Your task to perform on an android device: toggle translation in the chrome app Image 0: 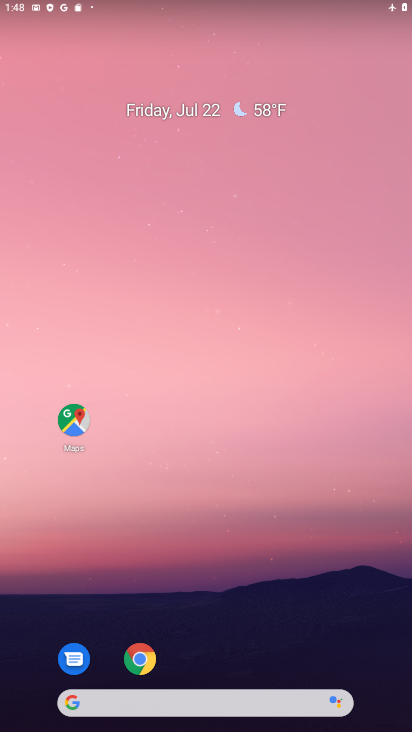
Step 0: press home button
Your task to perform on an android device: toggle translation in the chrome app Image 1: 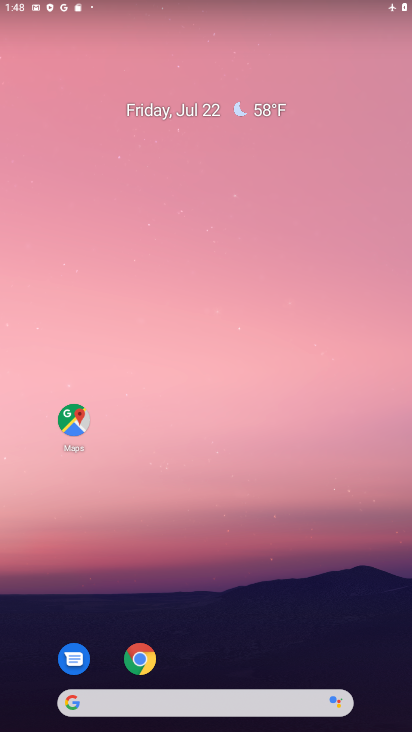
Step 1: drag from (243, 663) to (202, 189)
Your task to perform on an android device: toggle translation in the chrome app Image 2: 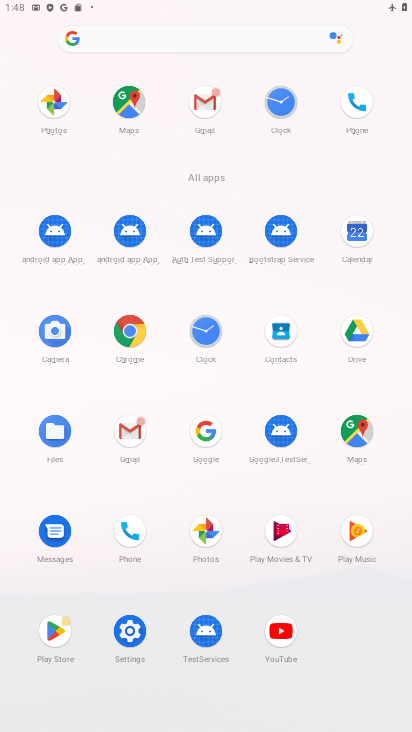
Step 2: click (130, 333)
Your task to perform on an android device: toggle translation in the chrome app Image 3: 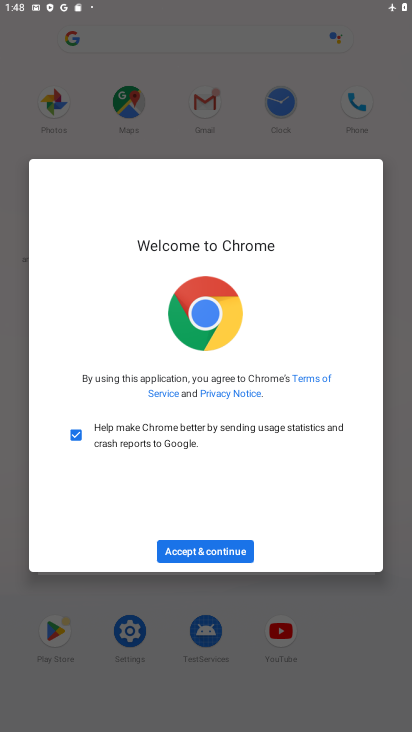
Step 3: click (203, 547)
Your task to perform on an android device: toggle translation in the chrome app Image 4: 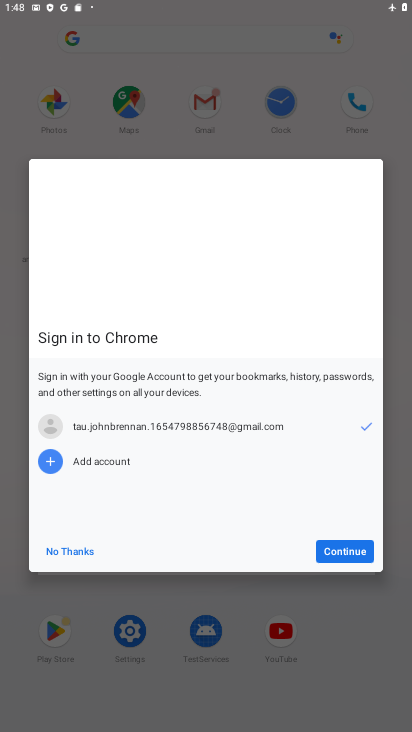
Step 4: click (335, 548)
Your task to perform on an android device: toggle translation in the chrome app Image 5: 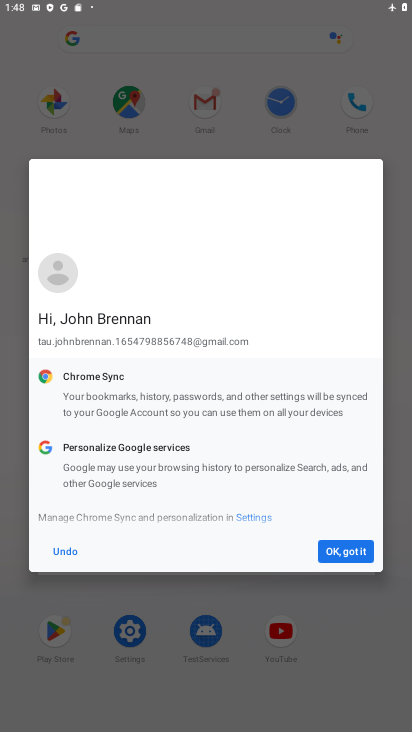
Step 5: click (348, 549)
Your task to perform on an android device: toggle translation in the chrome app Image 6: 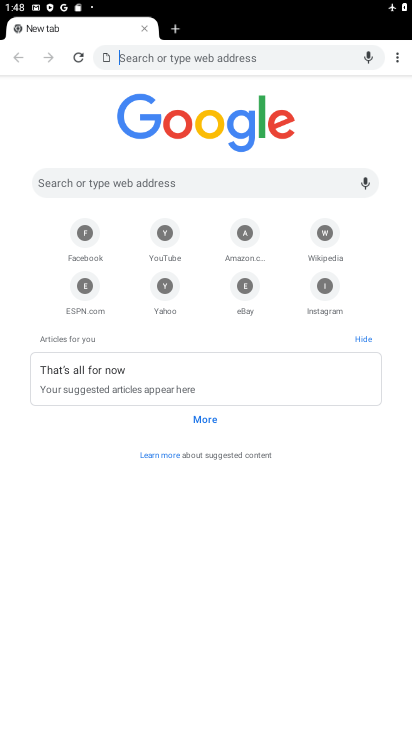
Step 6: drag from (396, 62) to (289, 259)
Your task to perform on an android device: toggle translation in the chrome app Image 7: 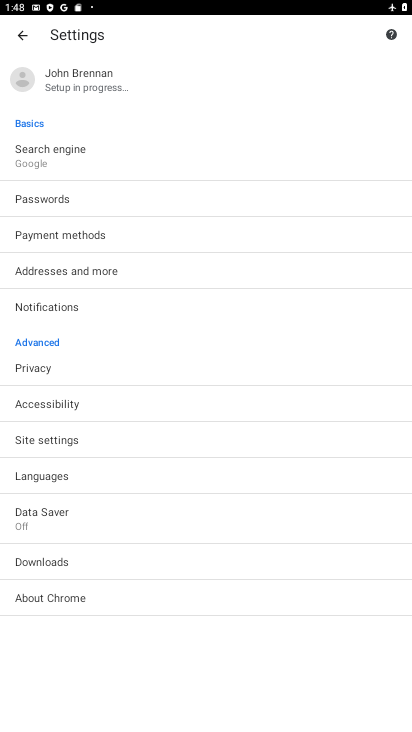
Step 7: click (41, 474)
Your task to perform on an android device: toggle translation in the chrome app Image 8: 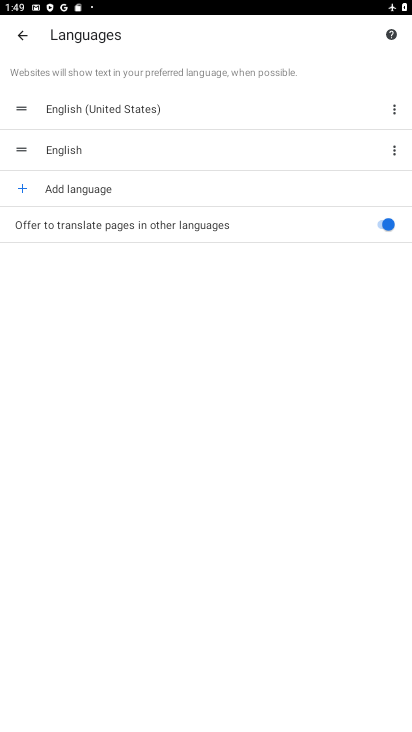
Step 8: click (384, 224)
Your task to perform on an android device: toggle translation in the chrome app Image 9: 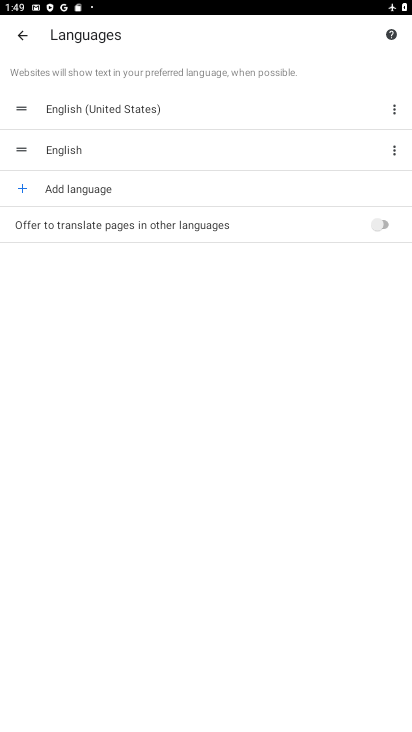
Step 9: task complete